Your task to perform on an android device: allow notifications from all sites in the chrome app Image 0: 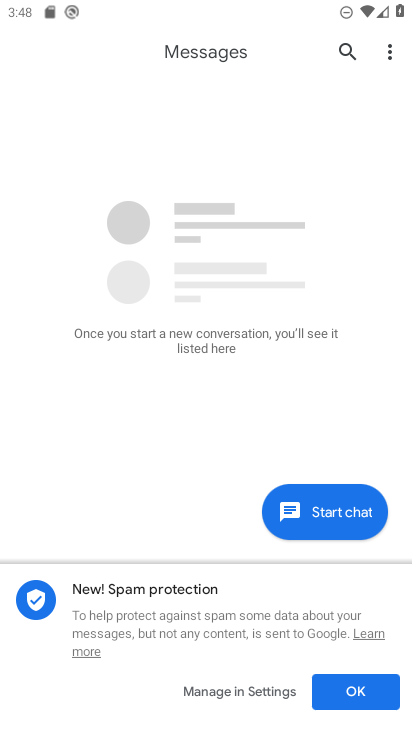
Step 0: press home button
Your task to perform on an android device: allow notifications from all sites in the chrome app Image 1: 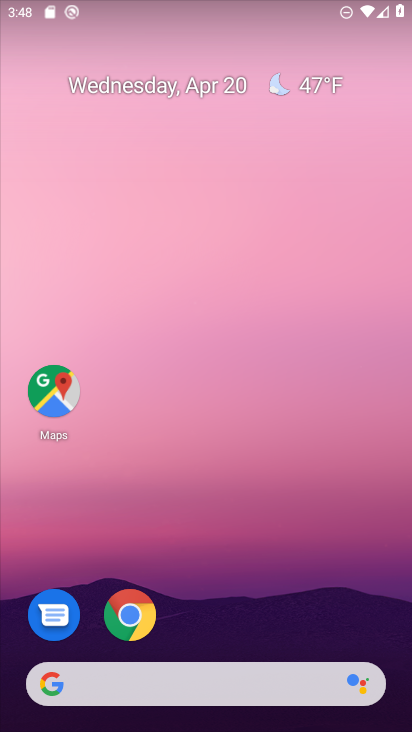
Step 1: click (133, 620)
Your task to perform on an android device: allow notifications from all sites in the chrome app Image 2: 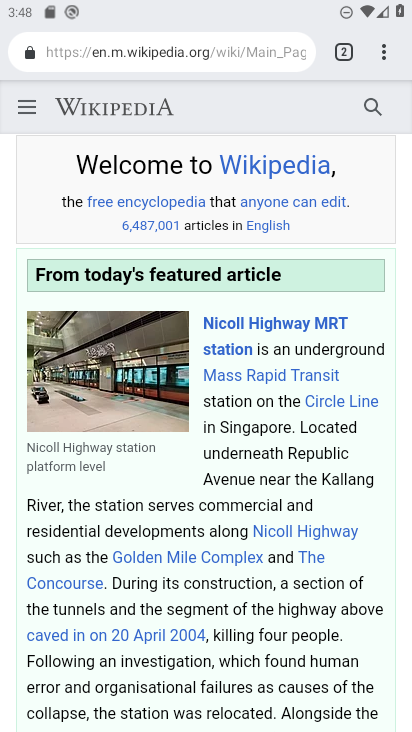
Step 2: click (381, 52)
Your task to perform on an android device: allow notifications from all sites in the chrome app Image 3: 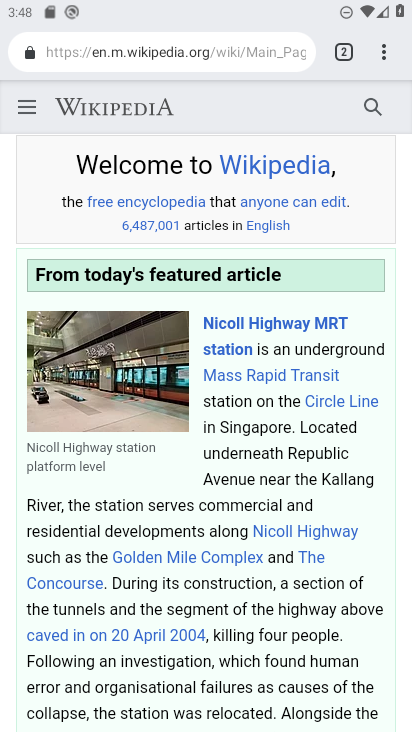
Step 3: click (380, 53)
Your task to perform on an android device: allow notifications from all sites in the chrome app Image 4: 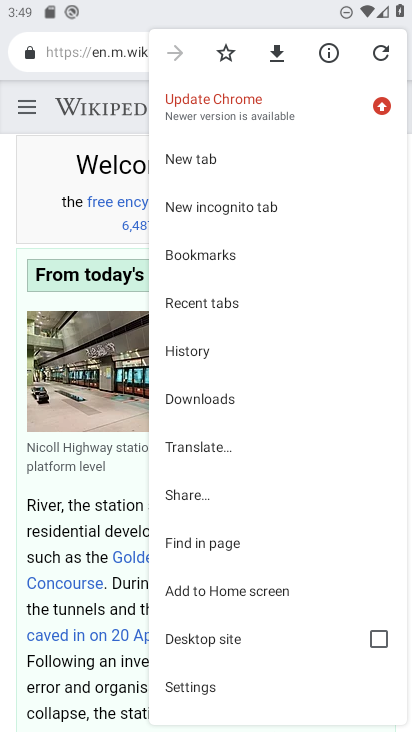
Step 4: click (242, 676)
Your task to perform on an android device: allow notifications from all sites in the chrome app Image 5: 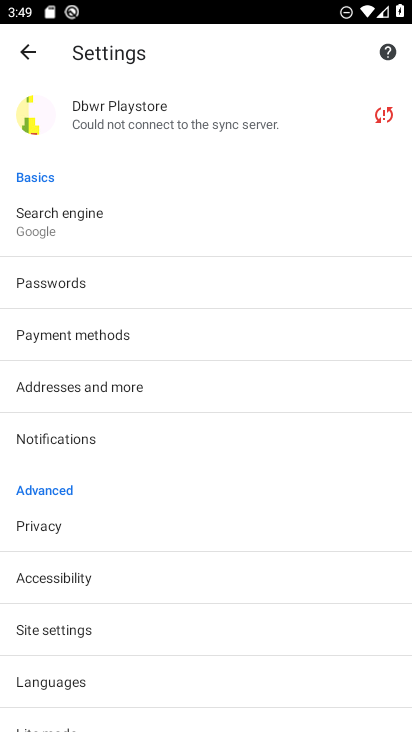
Step 5: click (110, 439)
Your task to perform on an android device: allow notifications from all sites in the chrome app Image 6: 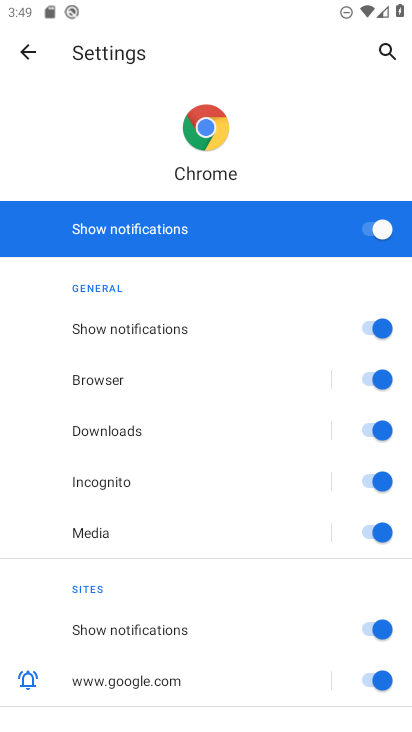
Step 6: task complete